Your task to perform on an android device: add a contact Image 0: 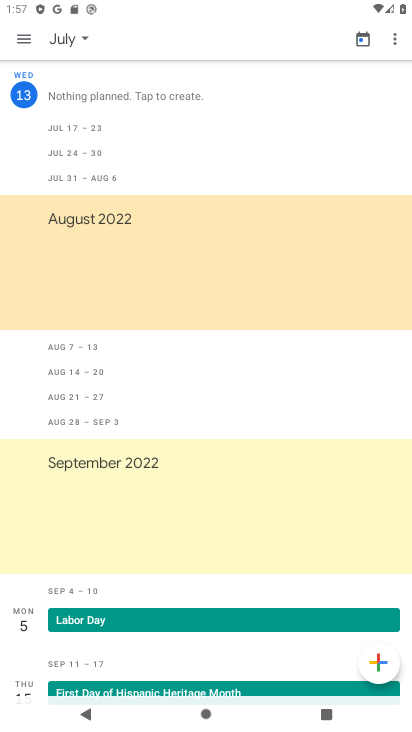
Step 0: press home button
Your task to perform on an android device: add a contact Image 1: 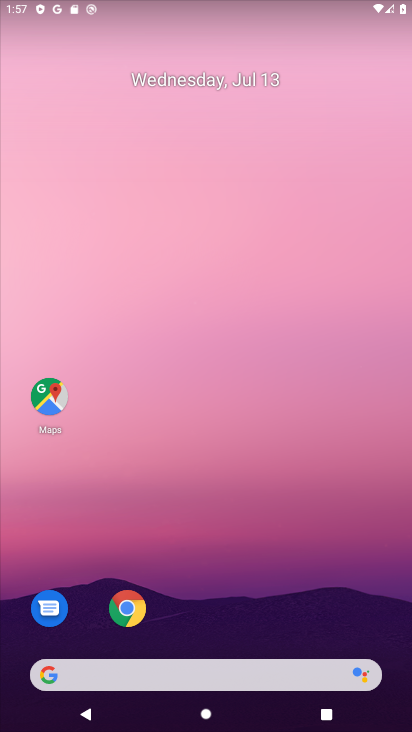
Step 1: drag from (258, 645) to (195, 216)
Your task to perform on an android device: add a contact Image 2: 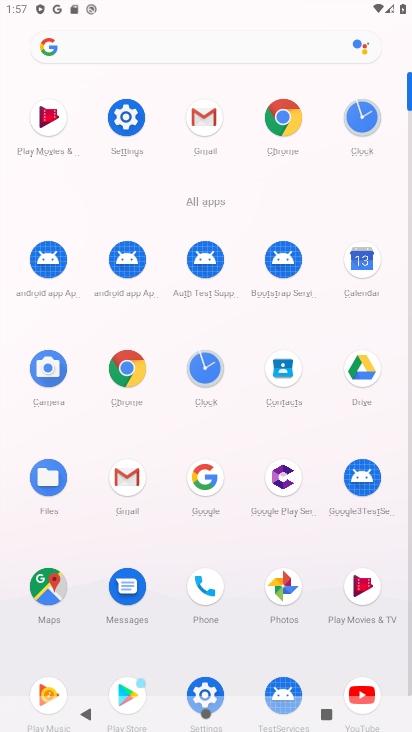
Step 2: click (281, 382)
Your task to perform on an android device: add a contact Image 3: 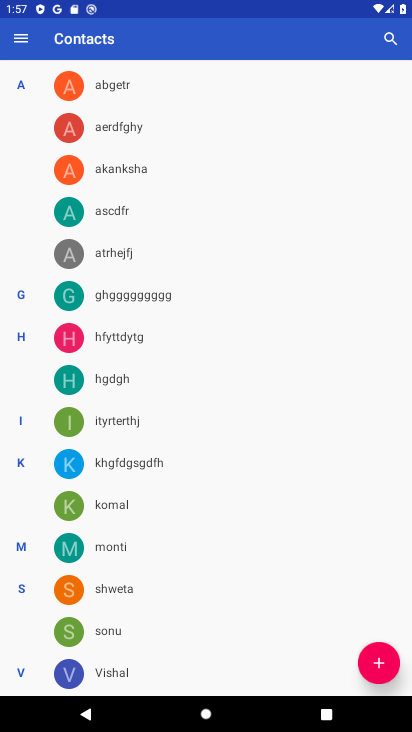
Step 3: click (390, 666)
Your task to perform on an android device: add a contact Image 4: 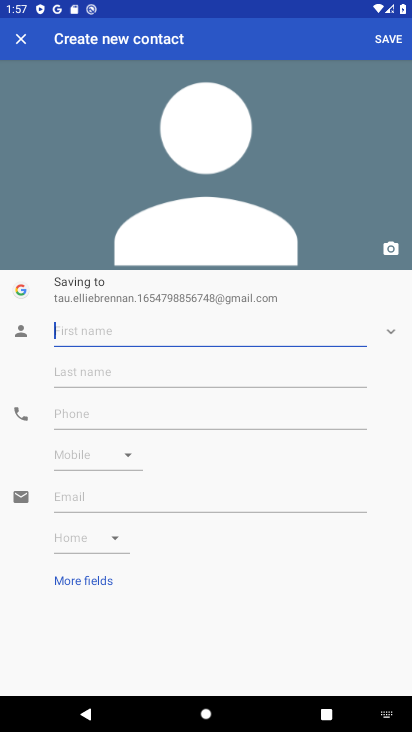
Step 4: type "pokjhgvfcx"
Your task to perform on an android device: add a contact Image 5: 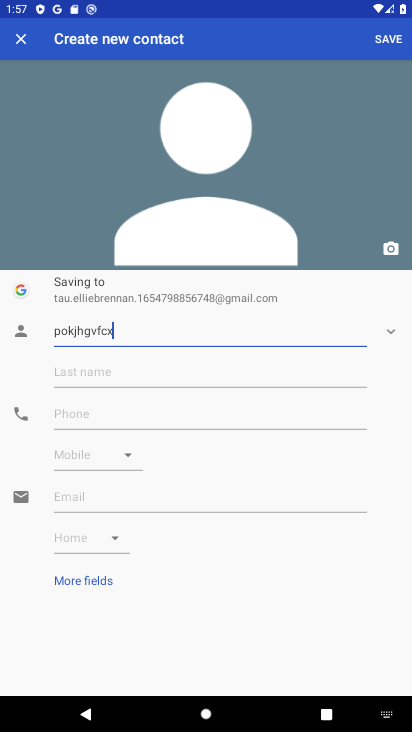
Step 5: click (269, 425)
Your task to perform on an android device: add a contact Image 6: 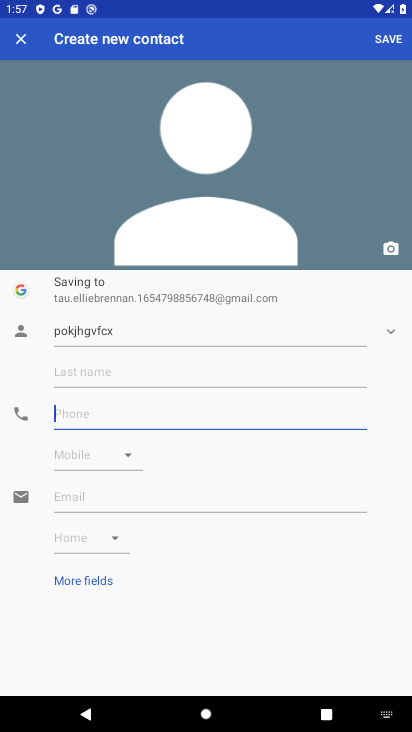
Step 6: type "09876543234567"
Your task to perform on an android device: add a contact Image 7: 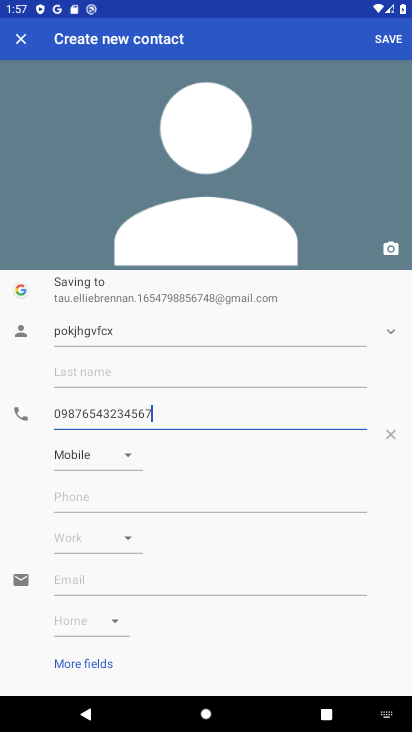
Step 7: click (390, 39)
Your task to perform on an android device: add a contact Image 8: 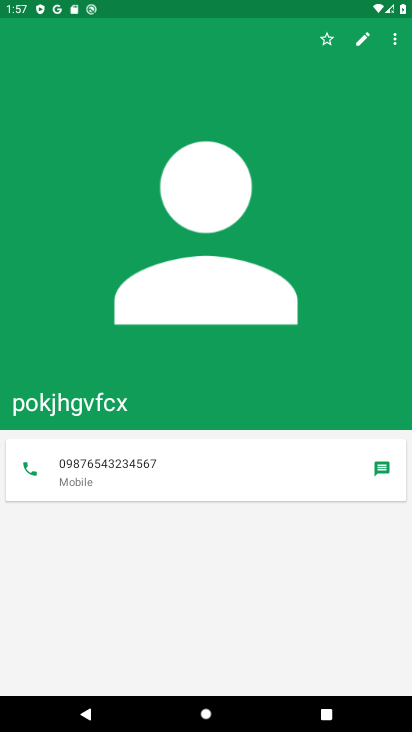
Step 8: task complete